Your task to perform on an android device: turn off picture-in-picture Image 0: 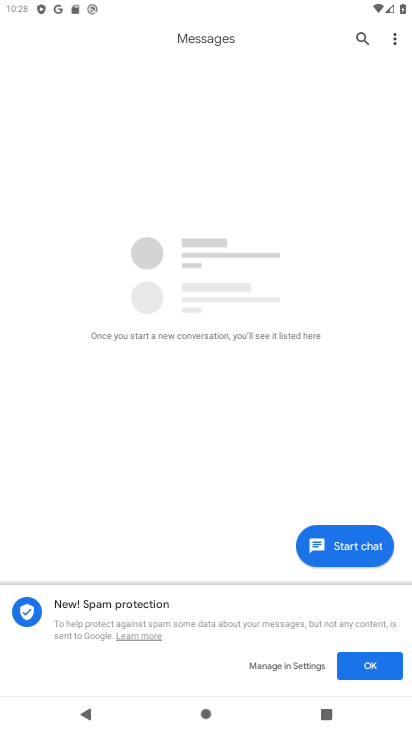
Step 0: press home button
Your task to perform on an android device: turn off picture-in-picture Image 1: 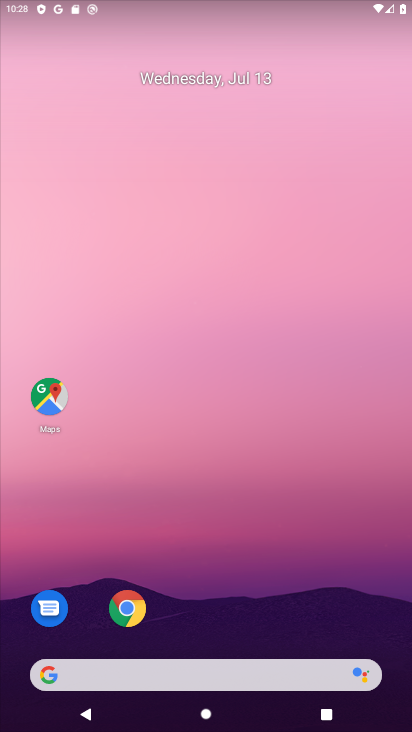
Step 1: click (133, 613)
Your task to perform on an android device: turn off picture-in-picture Image 2: 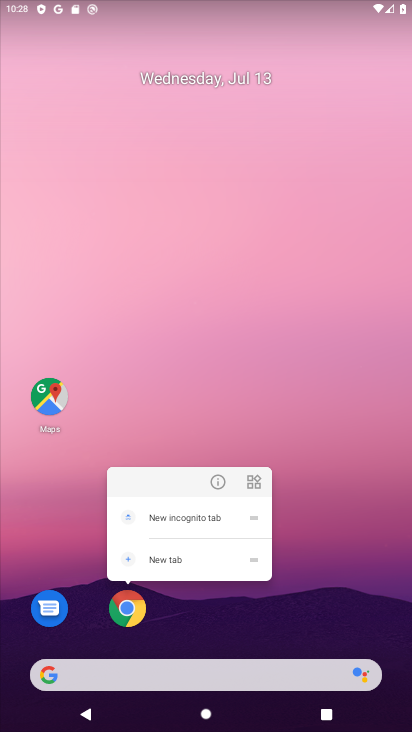
Step 2: click (214, 479)
Your task to perform on an android device: turn off picture-in-picture Image 3: 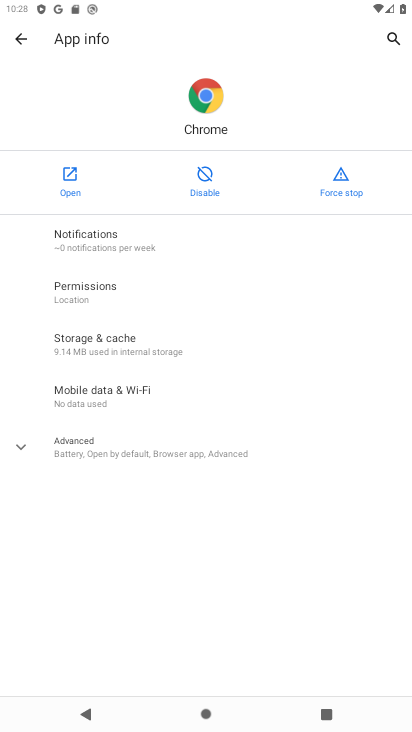
Step 3: click (173, 451)
Your task to perform on an android device: turn off picture-in-picture Image 4: 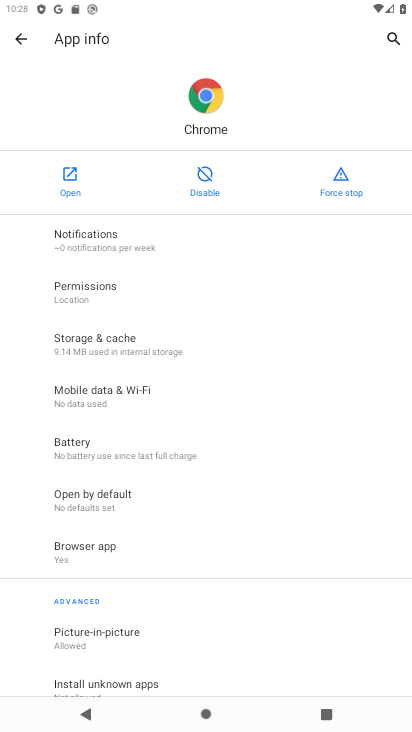
Step 4: click (103, 632)
Your task to perform on an android device: turn off picture-in-picture Image 5: 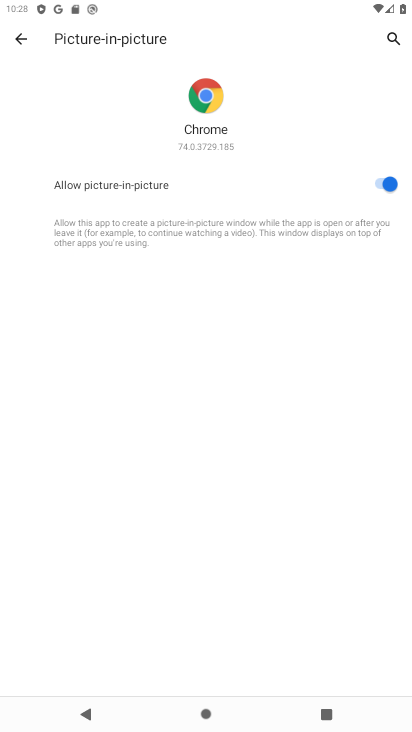
Step 5: click (392, 186)
Your task to perform on an android device: turn off picture-in-picture Image 6: 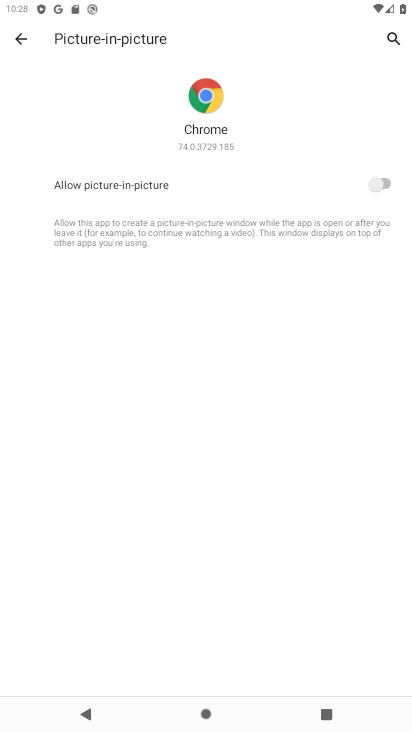
Step 6: task complete